Your task to perform on an android device: Open accessibility settings Image 0: 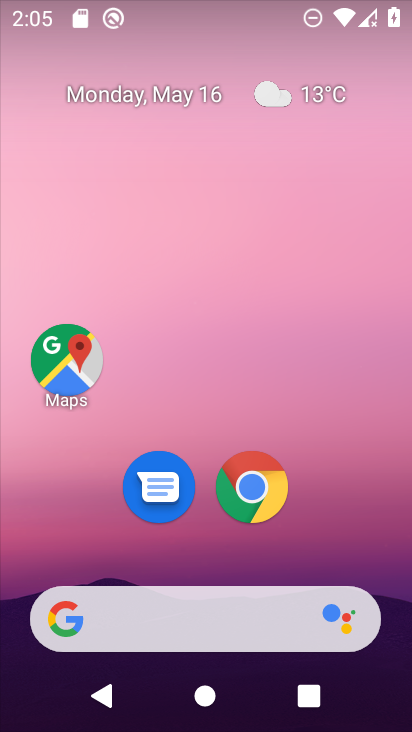
Step 0: drag from (362, 266) to (353, 215)
Your task to perform on an android device: Open accessibility settings Image 1: 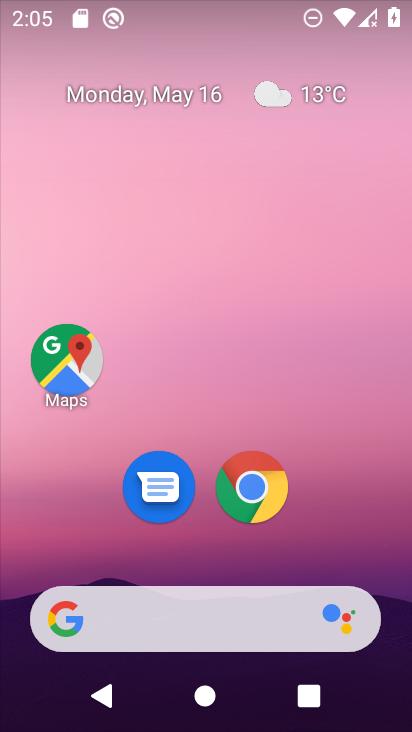
Step 1: drag from (397, 632) to (315, 106)
Your task to perform on an android device: Open accessibility settings Image 2: 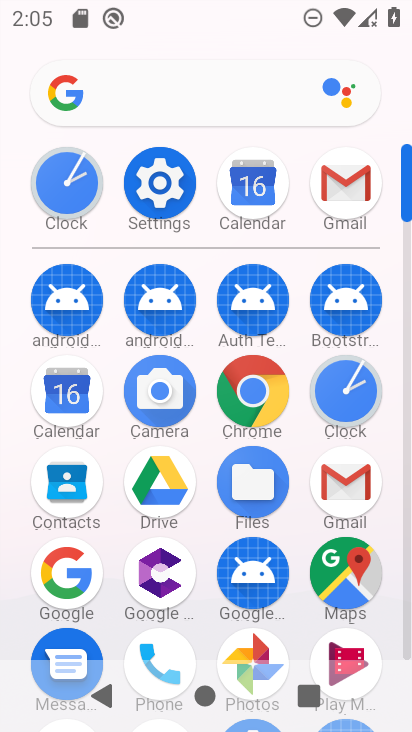
Step 2: click (161, 197)
Your task to perform on an android device: Open accessibility settings Image 3: 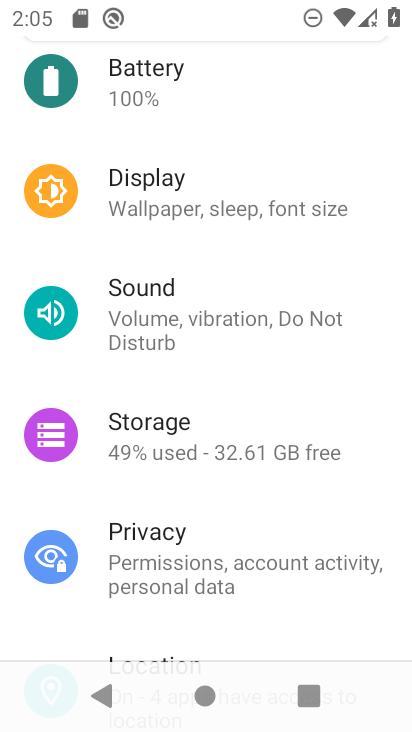
Step 3: drag from (346, 614) to (295, 189)
Your task to perform on an android device: Open accessibility settings Image 4: 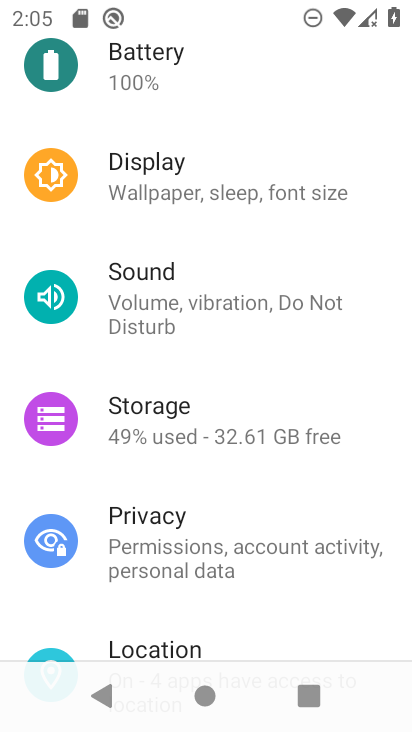
Step 4: drag from (322, 620) to (309, 298)
Your task to perform on an android device: Open accessibility settings Image 5: 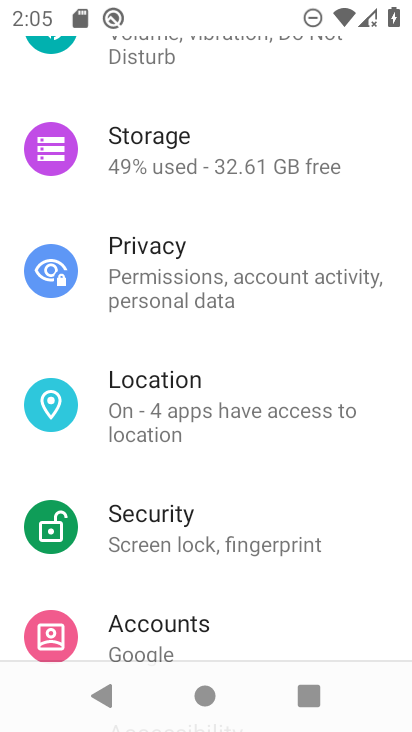
Step 5: drag from (359, 641) to (358, 387)
Your task to perform on an android device: Open accessibility settings Image 6: 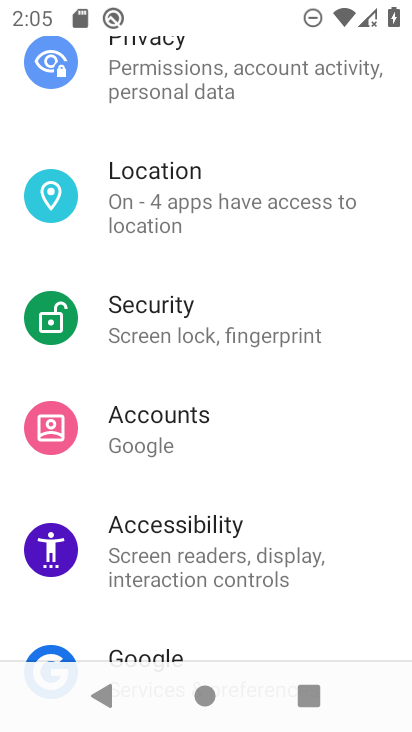
Step 6: click (176, 543)
Your task to perform on an android device: Open accessibility settings Image 7: 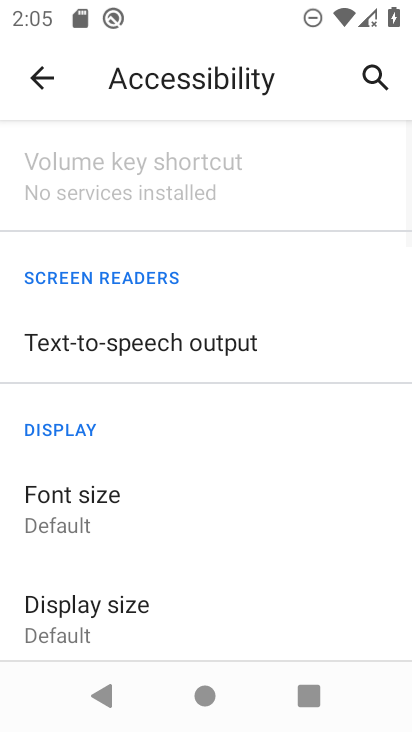
Step 7: task complete